Your task to perform on an android device: open a new tab in the chrome app Image 0: 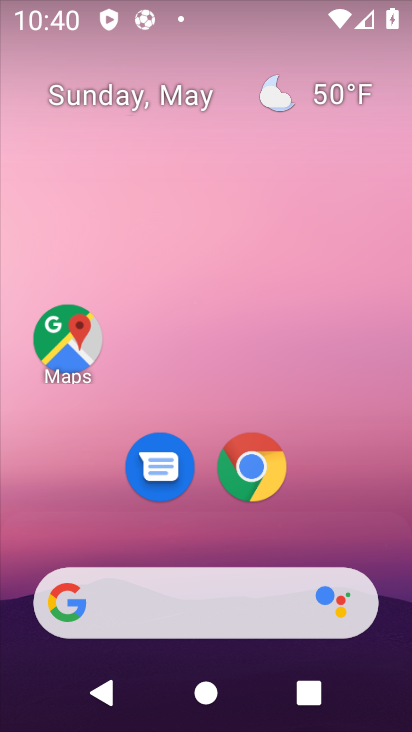
Step 0: click (241, 444)
Your task to perform on an android device: open a new tab in the chrome app Image 1: 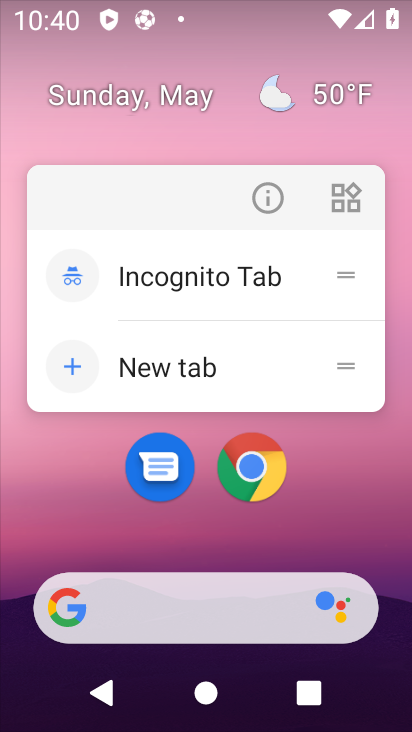
Step 1: click (256, 470)
Your task to perform on an android device: open a new tab in the chrome app Image 2: 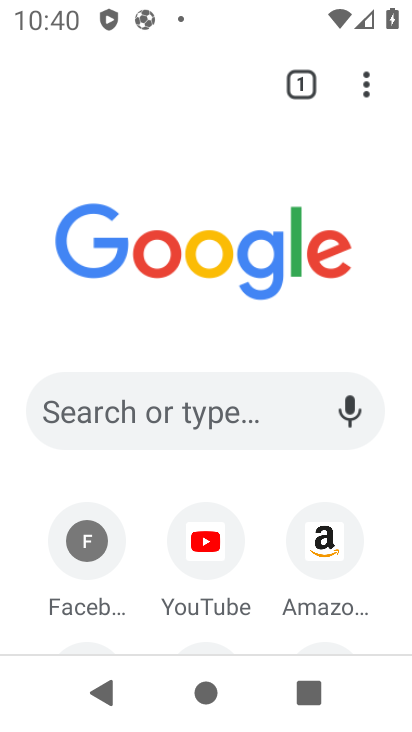
Step 2: task complete